Your task to perform on an android device: Show me recent news Image 0: 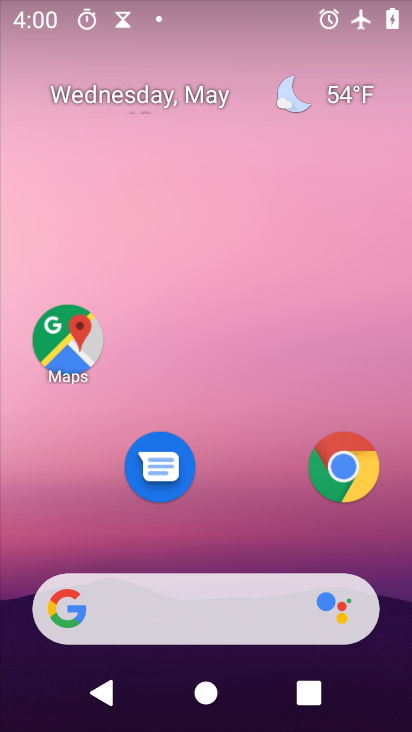
Step 0: drag from (253, 522) to (239, 134)
Your task to perform on an android device: Show me recent news Image 1: 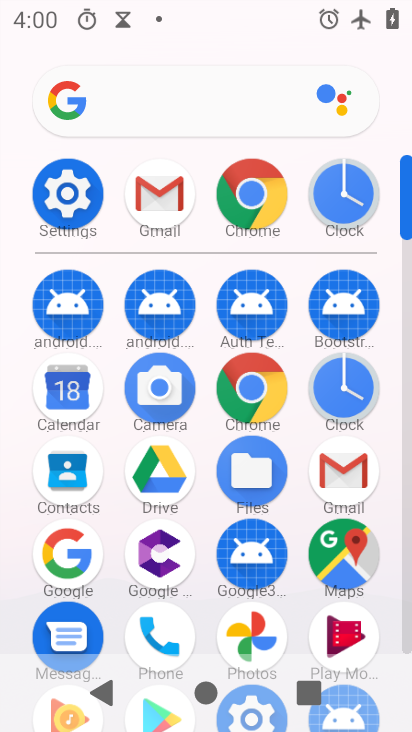
Step 1: click (251, 197)
Your task to perform on an android device: Show me recent news Image 2: 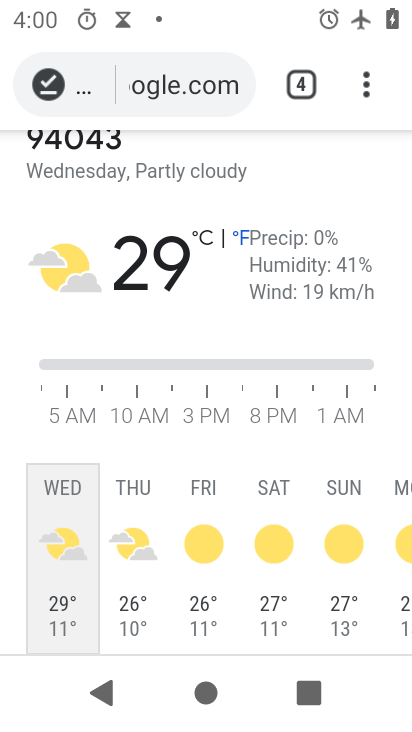
Step 2: click (158, 79)
Your task to perform on an android device: Show me recent news Image 3: 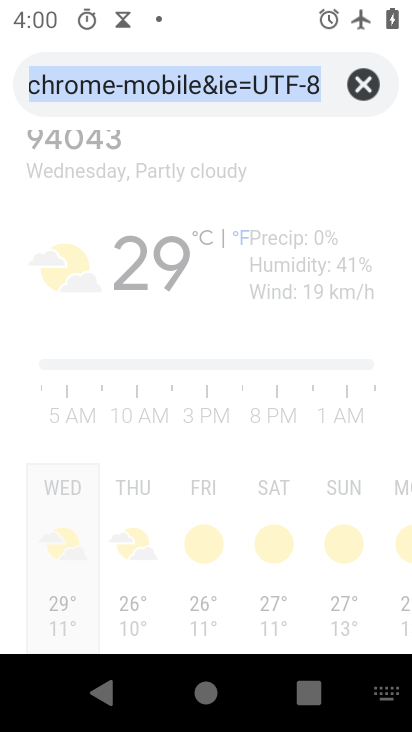
Step 3: type "recent news"
Your task to perform on an android device: Show me recent news Image 4: 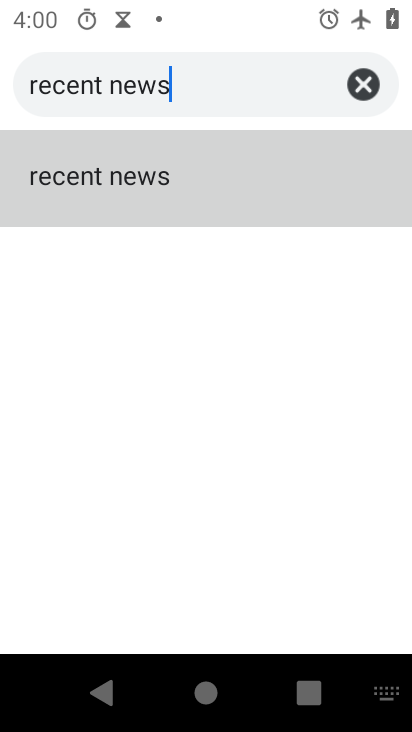
Step 4: click (184, 203)
Your task to perform on an android device: Show me recent news Image 5: 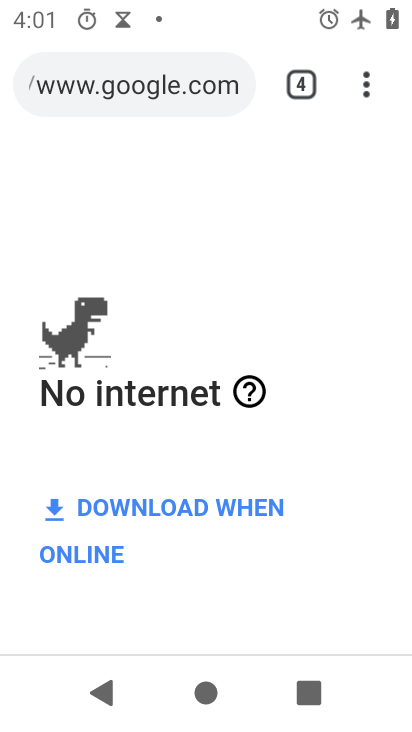
Step 5: task complete